Your task to perform on an android device: turn smart compose on in the gmail app Image 0: 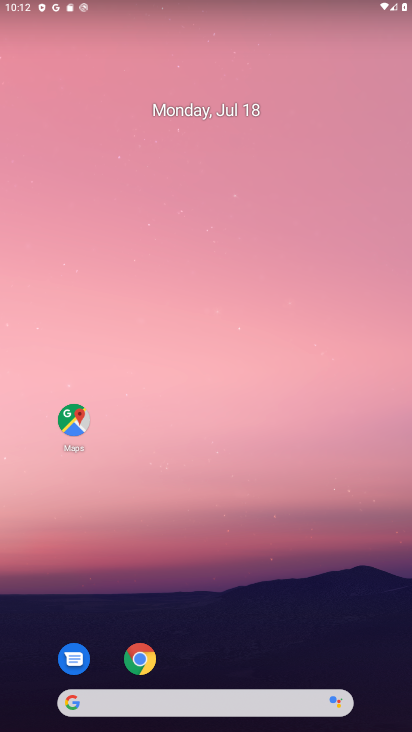
Step 0: drag from (242, 602) to (237, 12)
Your task to perform on an android device: turn smart compose on in the gmail app Image 1: 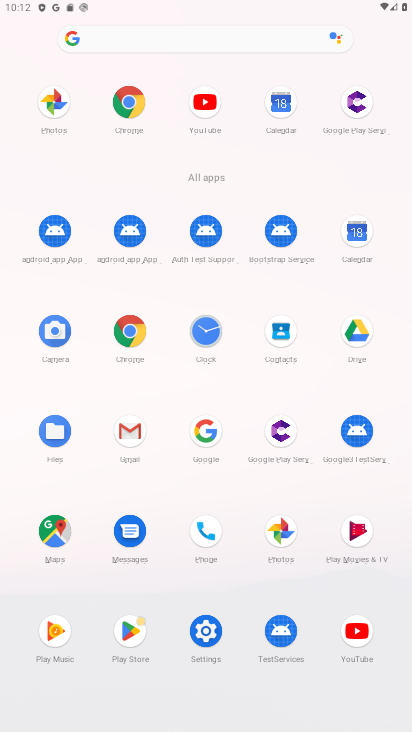
Step 1: click (138, 436)
Your task to perform on an android device: turn smart compose on in the gmail app Image 2: 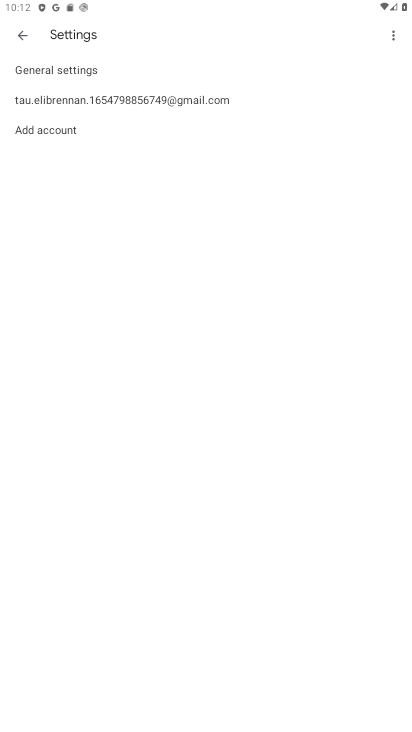
Step 2: click (75, 103)
Your task to perform on an android device: turn smart compose on in the gmail app Image 3: 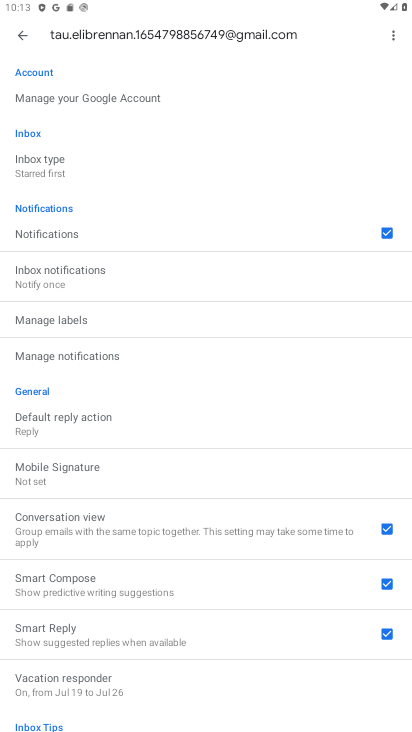
Step 3: task complete